Your task to perform on an android device: delete browsing data in the chrome app Image 0: 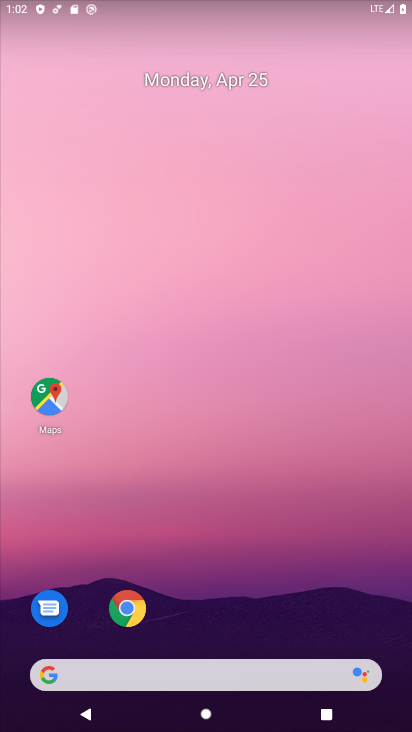
Step 0: click (133, 622)
Your task to perform on an android device: delete browsing data in the chrome app Image 1: 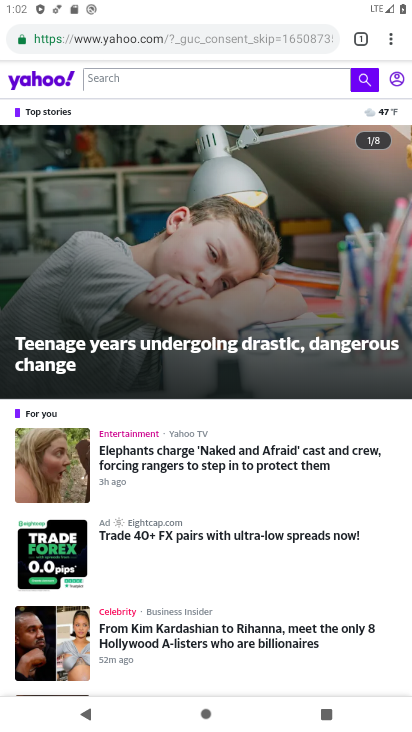
Step 1: click (390, 38)
Your task to perform on an android device: delete browsing data in the chrome app Image 2: 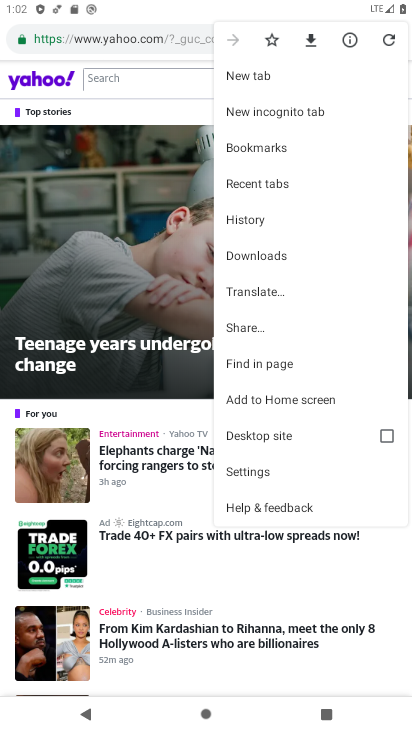
Step 2: click (272, 464)
Your task to perform on an android device: delete browsing data in the chrome app Image 3: 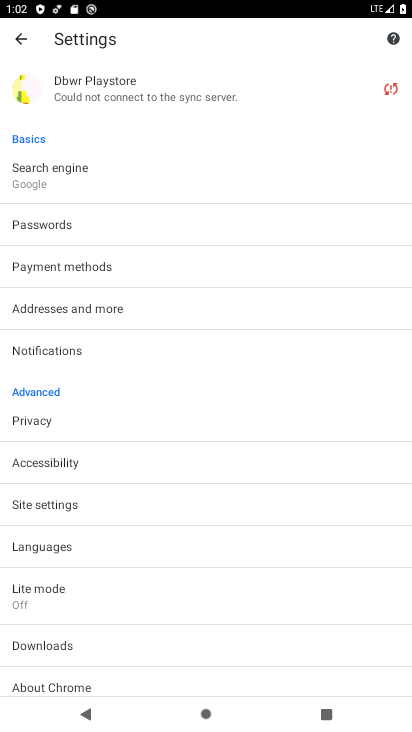
Step 3: click (135, 422)
Your task to perform on an android device: delete browsing data in the chrome app Image 4: 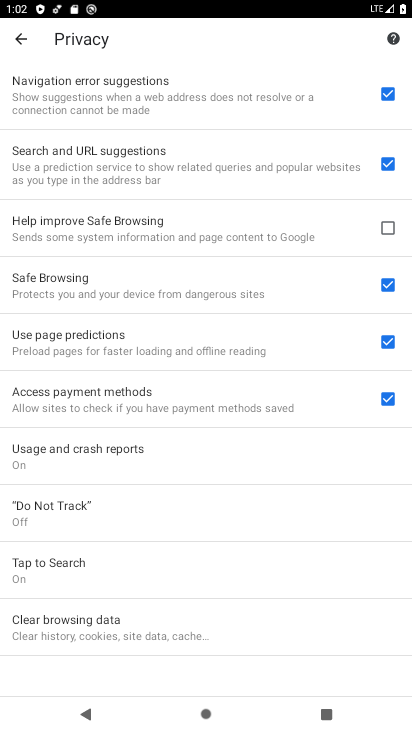
Step 4: drag from (177, 558) to (250, 66)
Your task to perform on an android device: delete browsing data in the chrome app Image 5: 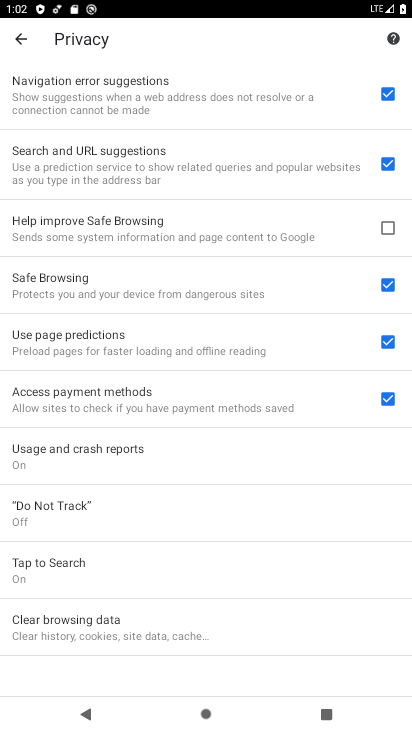
Step 5: click (154, 614)
Your task to perform on an android device: delete browsing data in the chrome app Image 6: 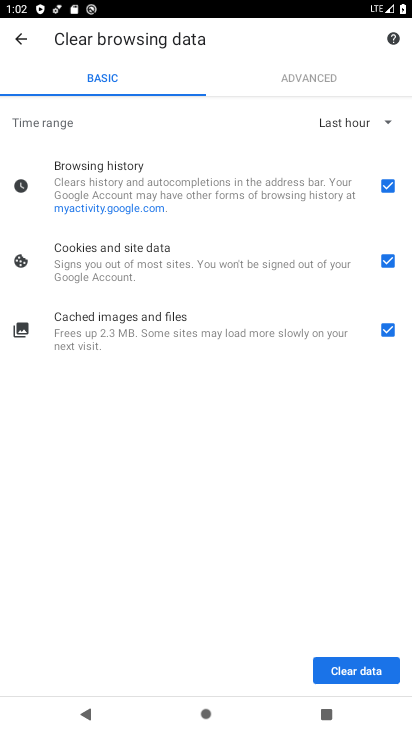
Step 6: click (329, 668)
Your task to perform on an android device: delete browsing data in the chrome app Image 7: 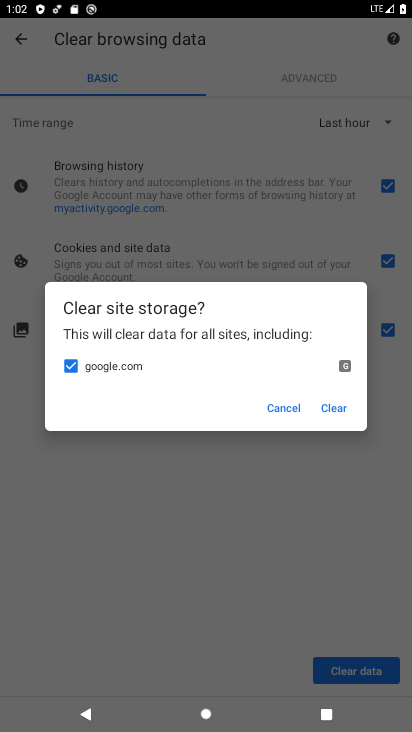
Step 7: click (346, 400)
Your task to perform on an android device: delete browsing data in the chrome app Image 8: 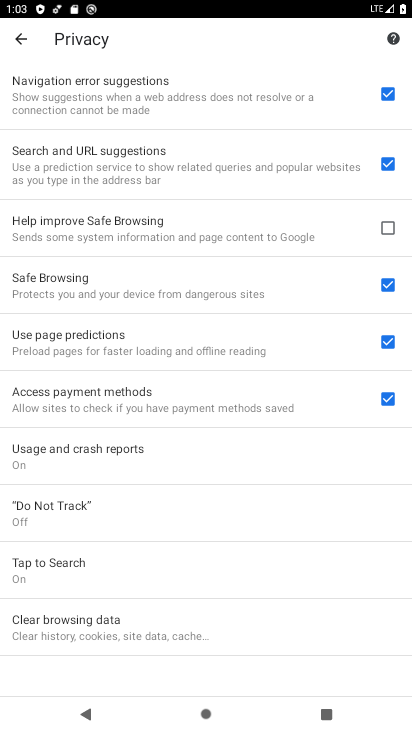
Step 8: task complete